Your task to perform on an android device: turn off location Image 0: 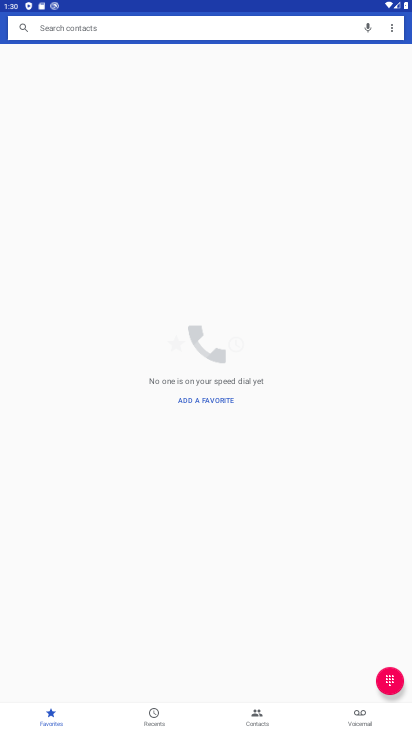
Step 0: press home button
Your task to perform on an android device: turn off location Image 1: 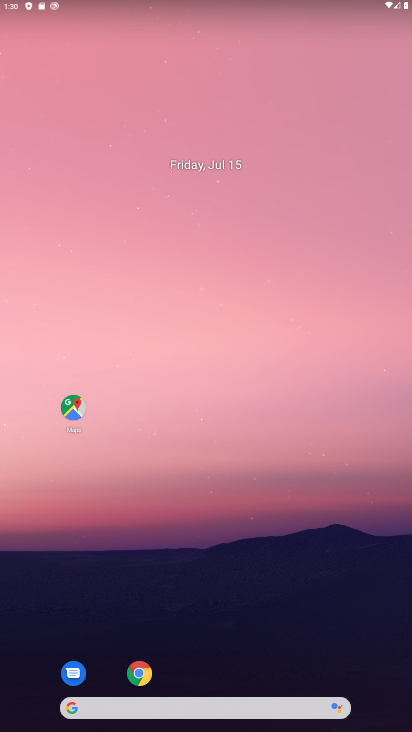
Step 1: drag from (252, 608) to (288, 106)
Your task to perform on an android device: turn off location Image 2: 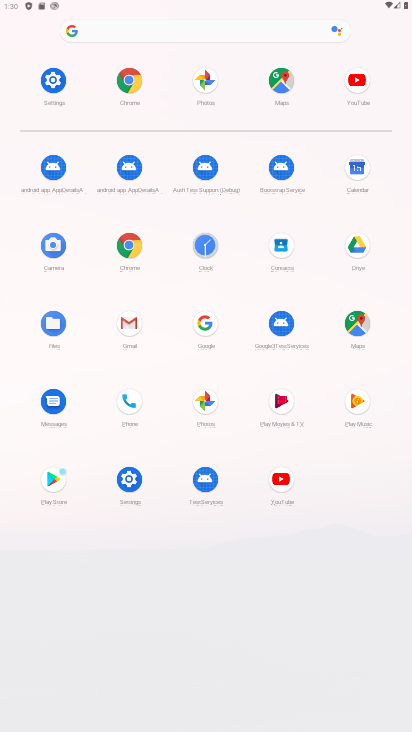
Step 2: click (55, 75)
Your task to perform on an android device: turn off location Image 3: 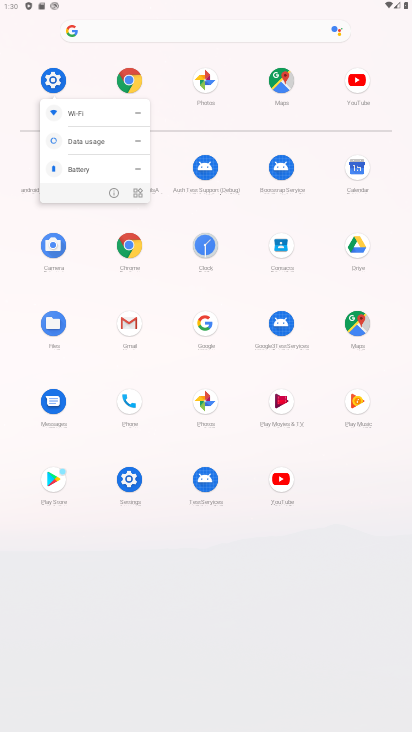
Step 3: click (55, 75)
Your task to perform on an android device: turn off location Image 4: 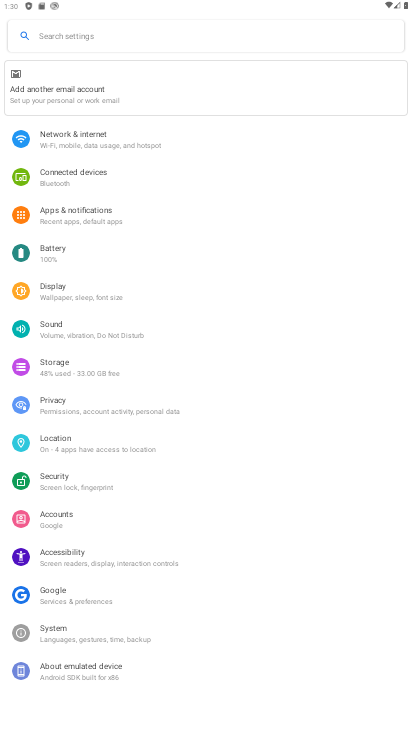
Step 4: click (112, 450)
Your task to perform on an android device: turn off location Image 5: 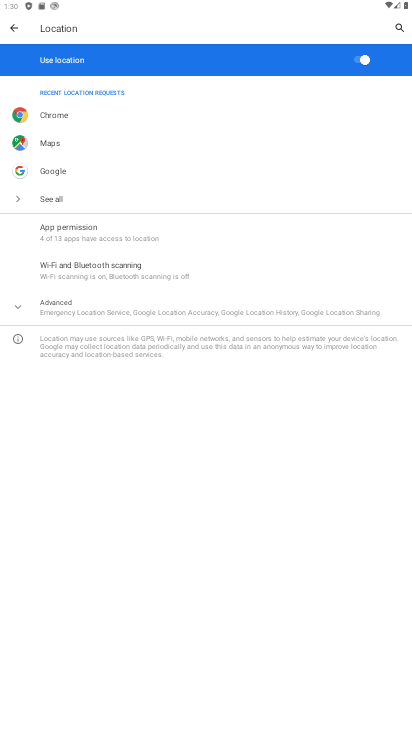
Step 5: click (359, 60)
Your task to perform on an android device: turn off location Image 6: 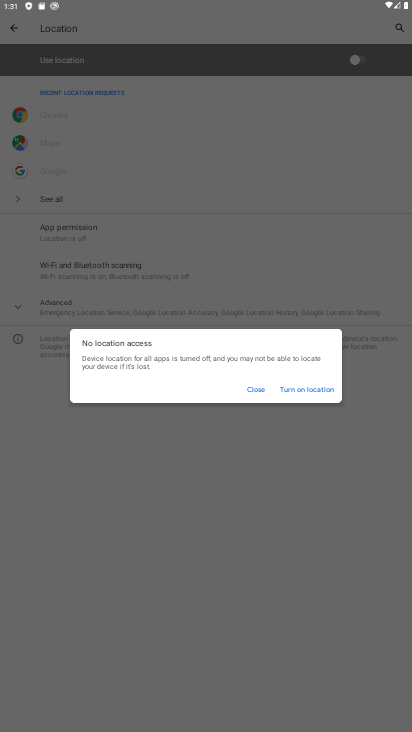
Step 6: task complete